Your task to perform on an android device: turn off translation in the chrome app Image 0: 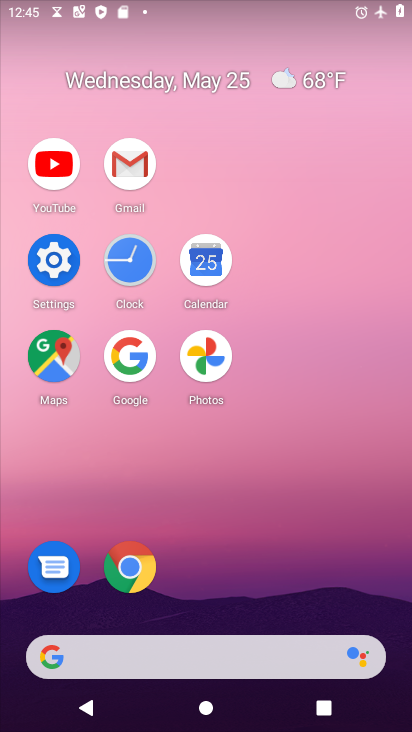
Step 0: click (144, 577)
Your task to perform on an android device: turn off translation in the chrome app Image 1: 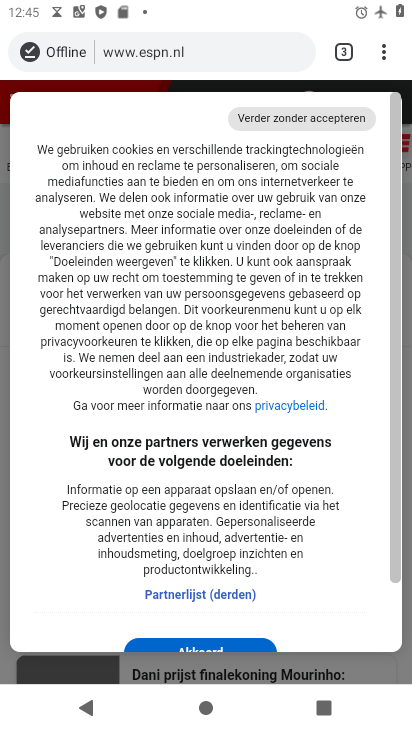
Step 1: click (389, 62)
Your task to perform on an android device: turn off translation in the chrome app Image 2: 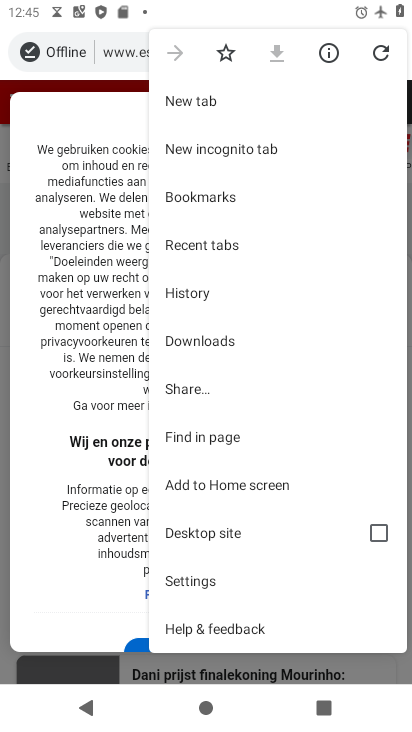
Step 2: drag from (285, 493) to (312, 172)
Your task to perform on an android device: turn off translation in the chrome app Image 3: 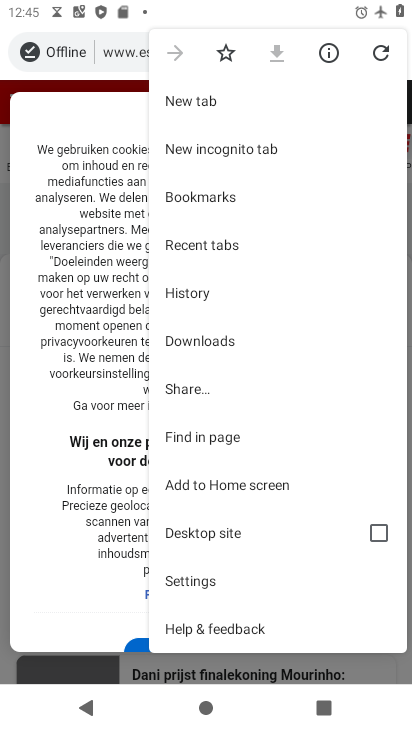
Step 3: click (207, 586)
Your task to perform on an android device: turn off translation in the chrome app Image 4: 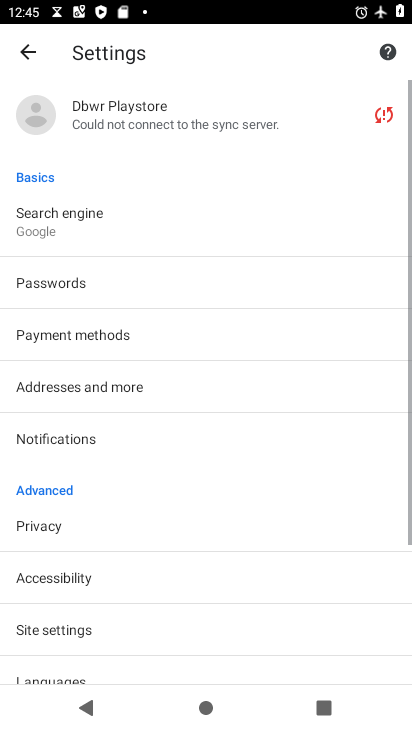
Step 4: drag from (207, 587) to (259, 217)
Your task to perform on an android device: turn off translation in the chrome app Image 5: 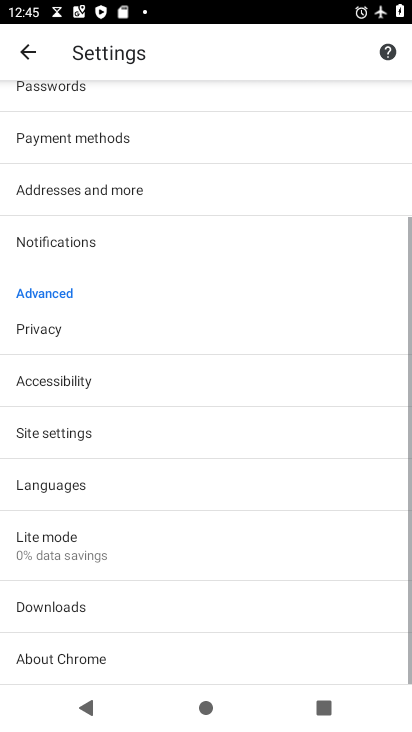
Step 5: drag from (162, 619) to (169, 345)
Your task to perform on an android device: turn off translation in the chrome app Image 6: 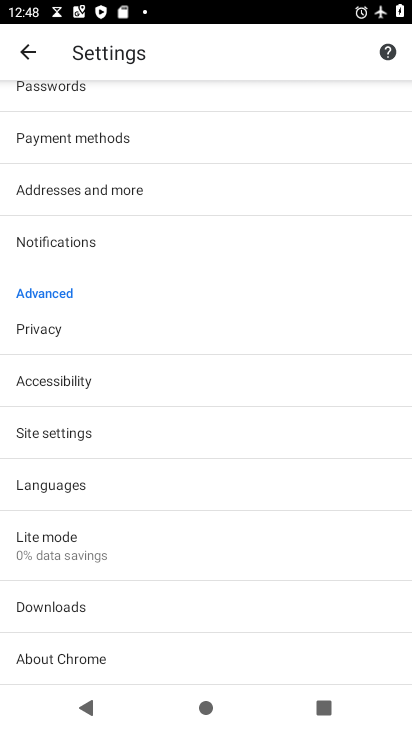
Step 6: drag from (112, 568) to (147, 244)
Your task to perform on an android device: turn off translation in the chrome app Image 7: 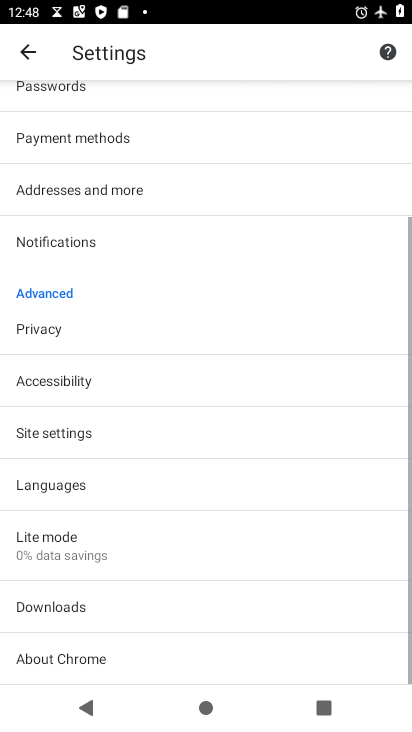
Step 7: click (166, 497)
Your task to perform on an android device: turn off translation in the chrome app Image 8: 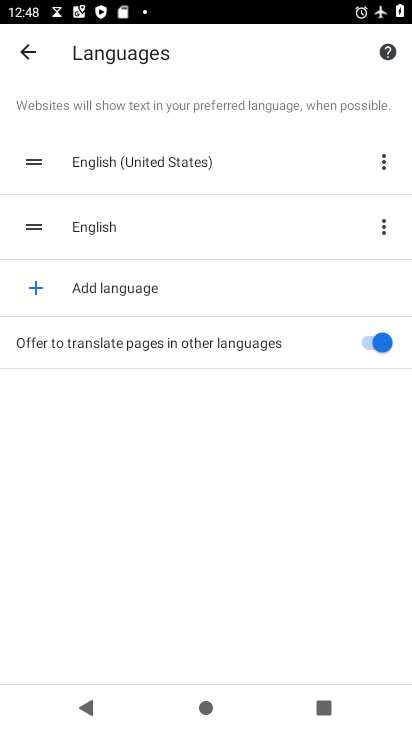
Step 8: click (382, 334)
Your task to perform on an android device: turn off translation in the chrome app Image 9: 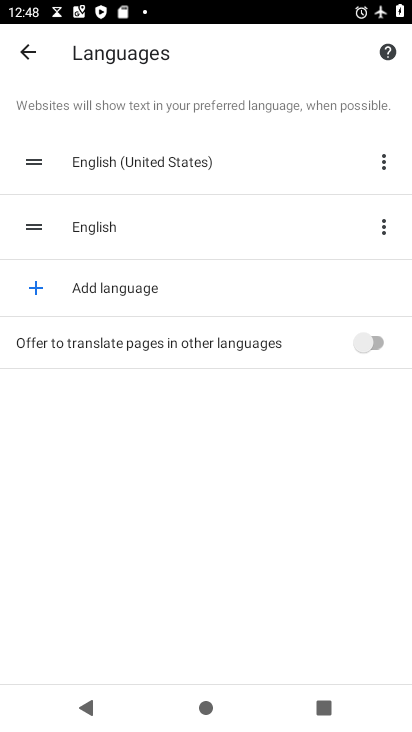
Step 9: task complete